Your task to perform on an android device: Do I have any events today? Image 0: 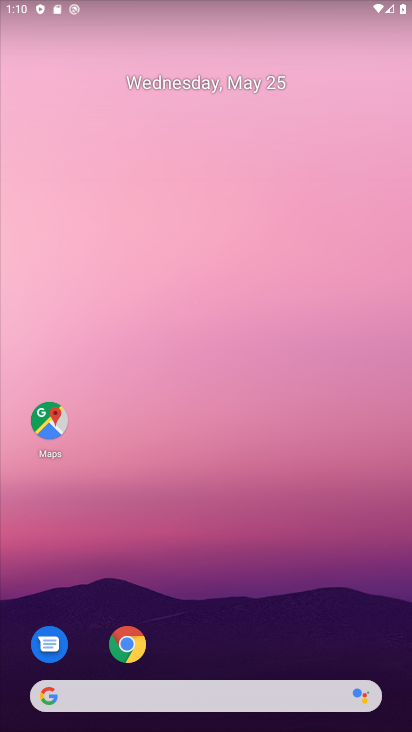
Step 0: drag from (220, 653) to (203, 150)
Your task to perform on an android device: Do I have any events today? Image 1: 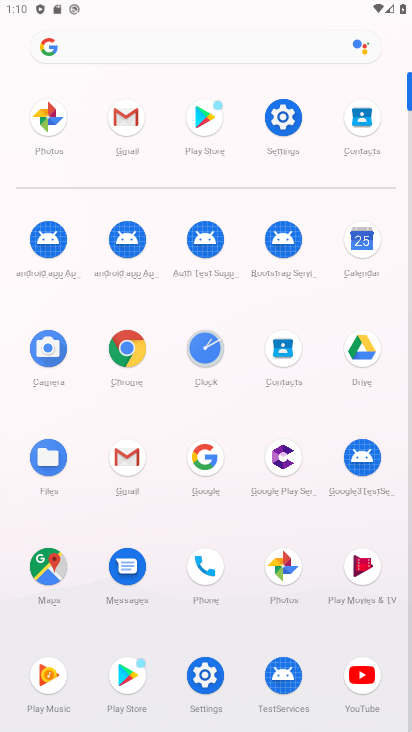
Step 1: drag from (234, 673) to (321, 114)
Your task to perform on an android device: Do I have any events today? Image 2: 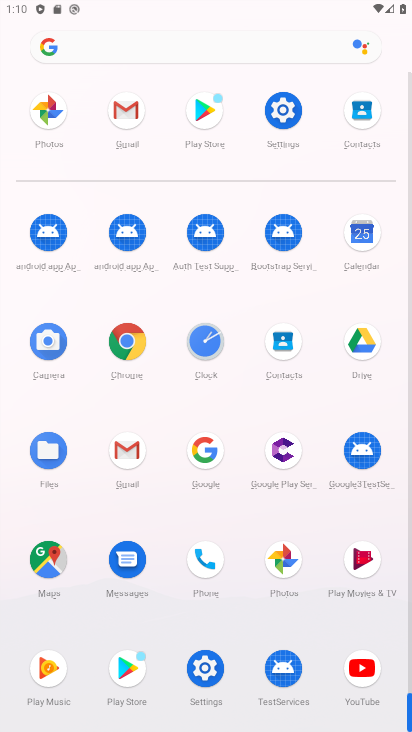
Step 2: click (369, 242)
Your task to perform on an android device: Do I have any events today? Image 3: 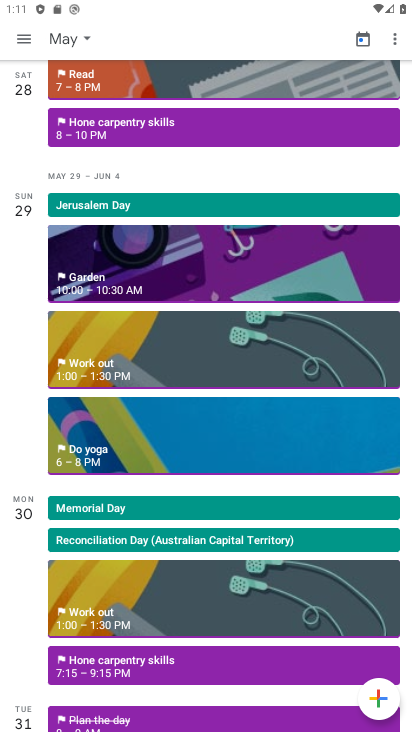
Step 3: task complete